Your task to perform on an android device: Open Chrome and go to the settings page Image 0: 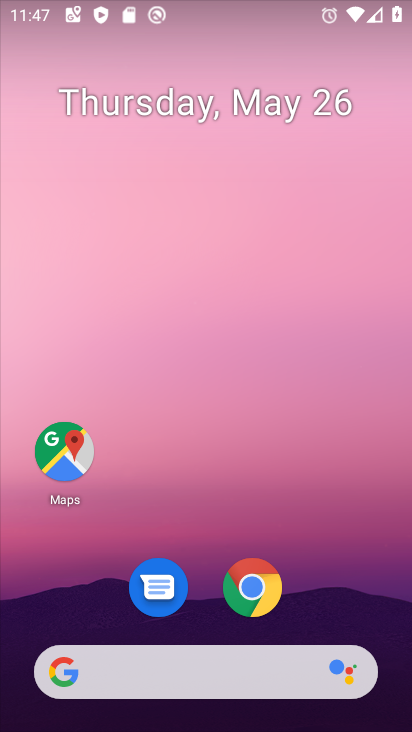
Step 0: drag from (275, 696) to (300, 37)
Your task to perform on an android device: Open Chrome and go to the settings page Image 1: 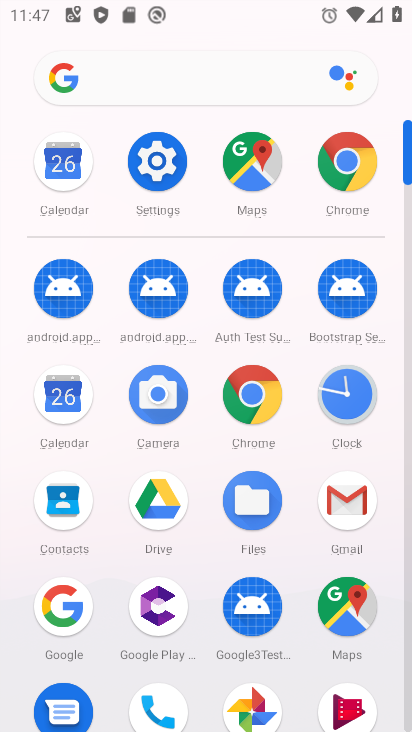
Step 1: click (336, 155)
Your task to perform on an android device: Open Chrome and go to the settings page Image 2: 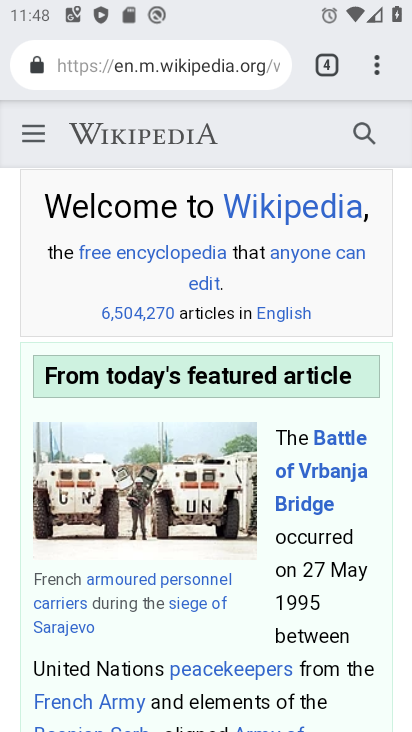
Step 2: click (375, 74)
Your task to perform on an android device: Open Chrome and go to the settings page Image 3: 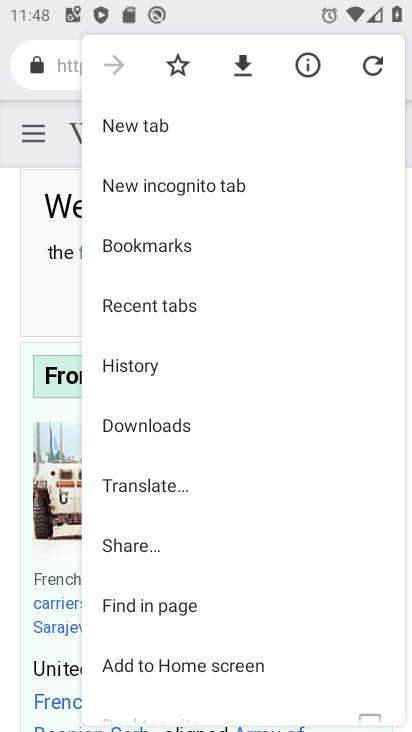
Step 3: drag from (240, 431) to (299, 175)
Your task to perform on an android device: Open Chrome and go to the settings page Image 4: 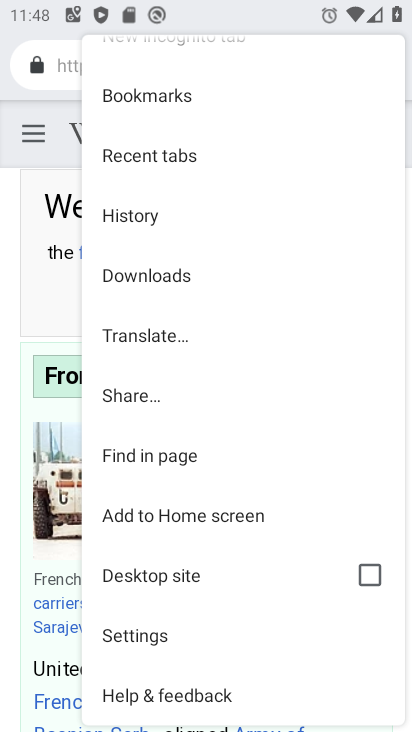
Step 4: drag from (254, 457) to (293, 269)
Your task to perform on an android device: Open Chrome and go to the settings page Image 5: 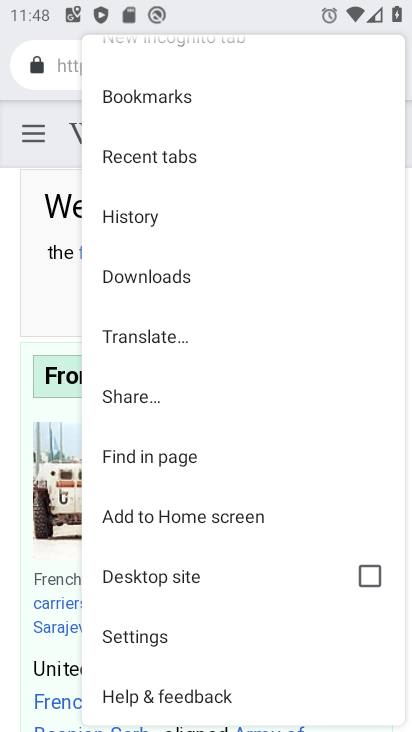
Step 5: click (145, 636)
Your task to perform on an android device: Open Chrome and go to the settings page Image 6: 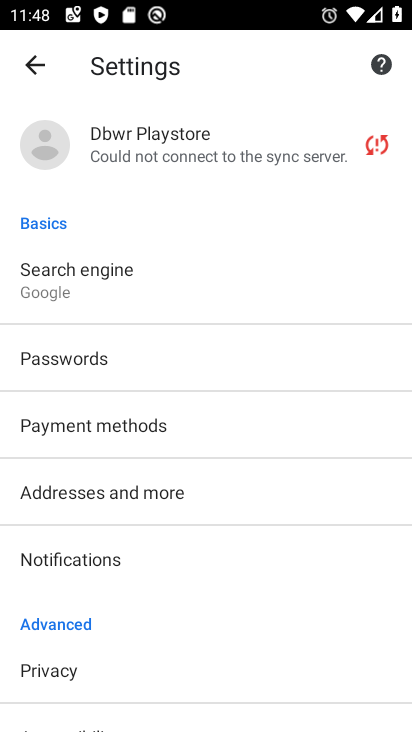
Step 6: task complete